Your task to perform on an android device: Open the Play Movies app and select the watchlist tab. Image 0: 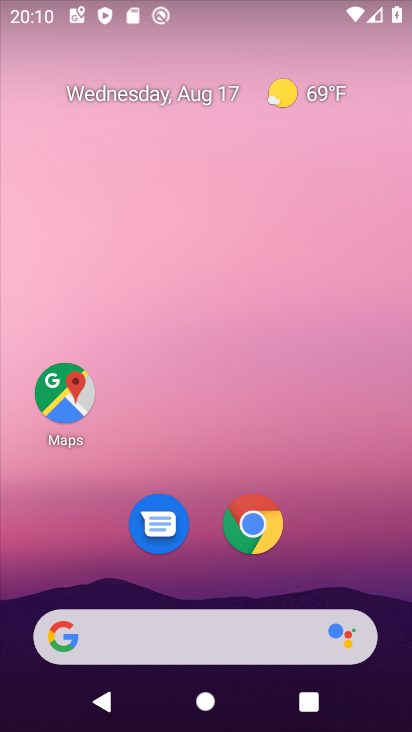
Step 0: drag from (302, 513) to (382, 23)
Your task to perform on an android device: Open the Play Movies app and select the watchlist tab. Image 1: 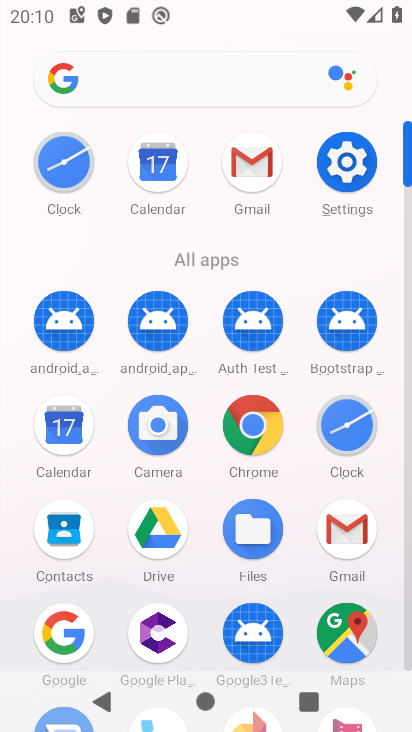
Step 1: drag from (294, 476) to (299, 128)
Your task to perform on an android device: Open the Play Movies app and select the watchlist tab. Image 2: 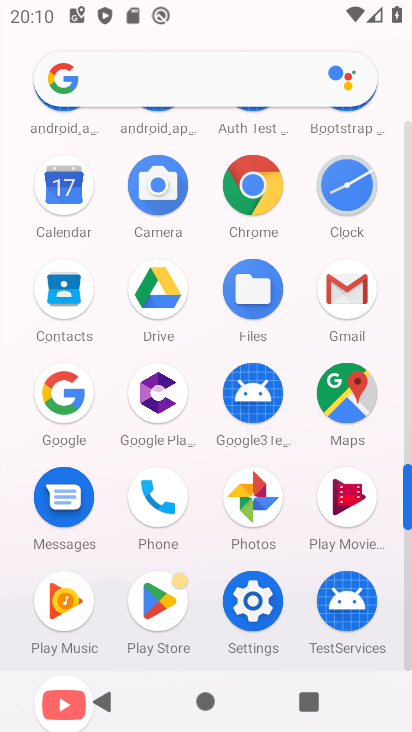
Step 2: click (337, 490)
Your task to perform on an android device: Open the Play Movies app and select the watchlist tab. Image 3: 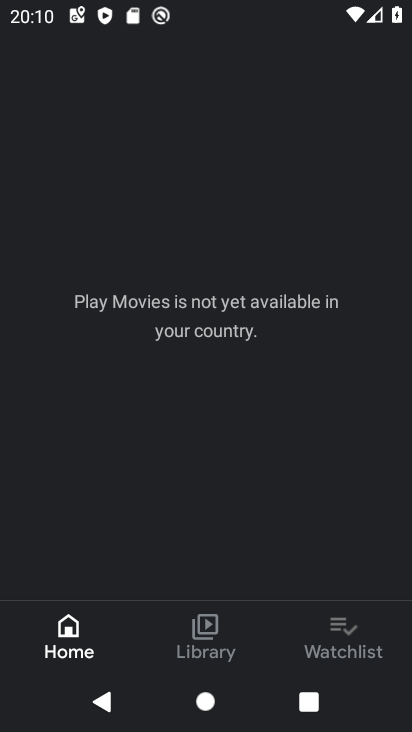
Step 3: click (350, 631)
Your task to perform on an android device: Open the Play Movies app and select the watchlist tab. Image 4: 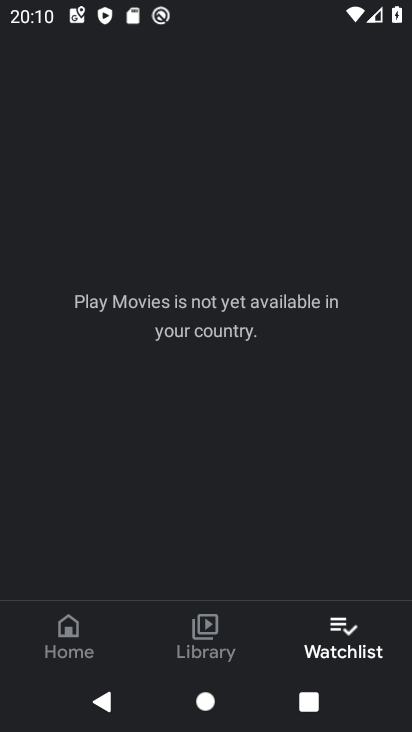
Step 4: task complete